Your task to perform on an android device: turn off airplane mode Image 0: 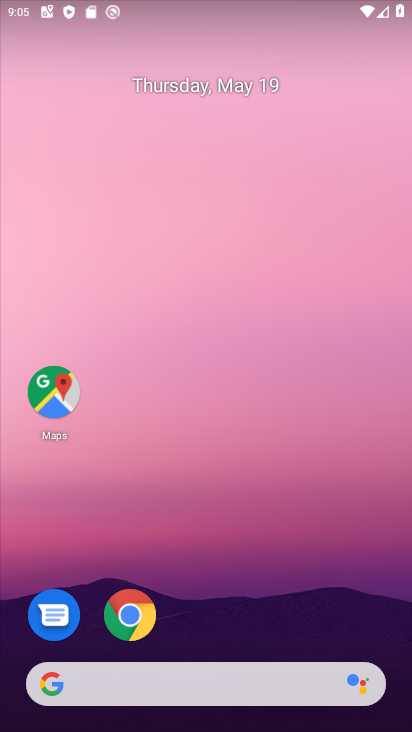
Step 0: drag from (311, 3) to (330, 726)
Your task to perform on an android device: turn off airplane mode Image 1: 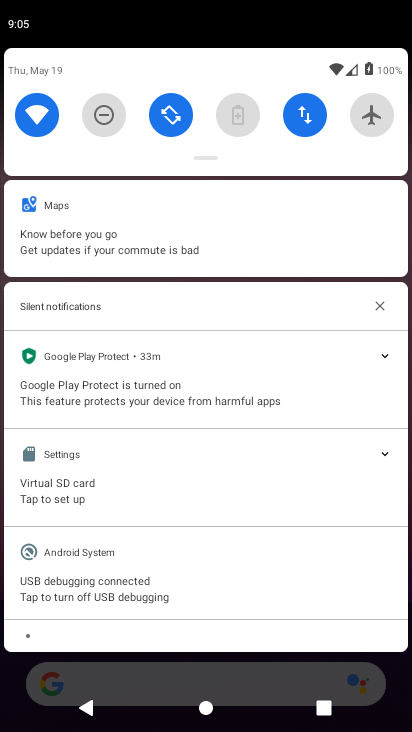
Step 1: task complete